Your task to perform on an android device: Set the phone to "Do not disturb". Image 0: 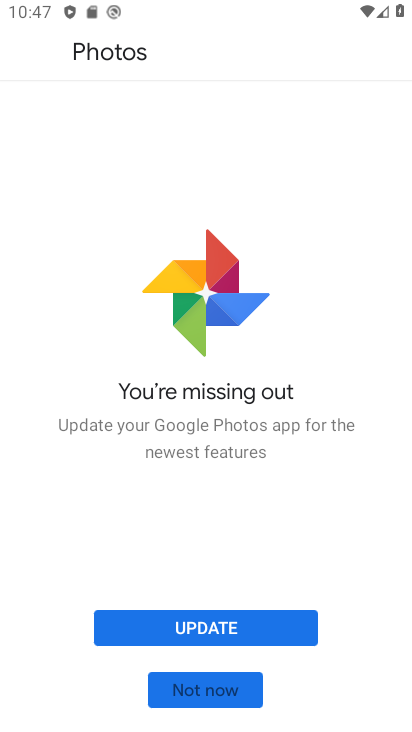
Step 0: press home button
Your task to perform on an android device: Set the phone to "Do not disturb". Image 1: 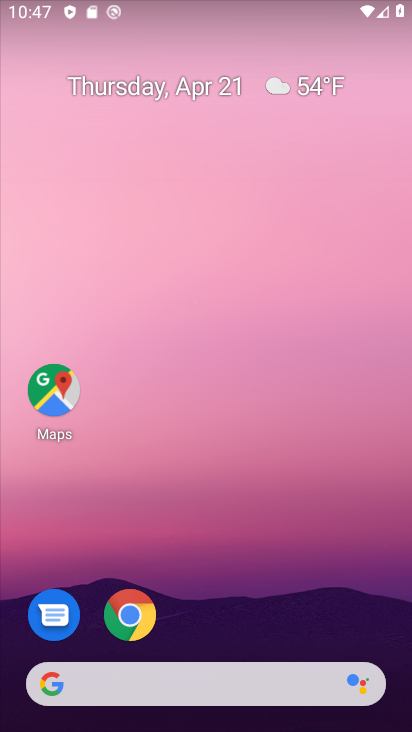
Step 1: drag from (234, 634) to (293, 313)
Your task to perform on an android device: Set the phone to "Do not disturb". Image 2: 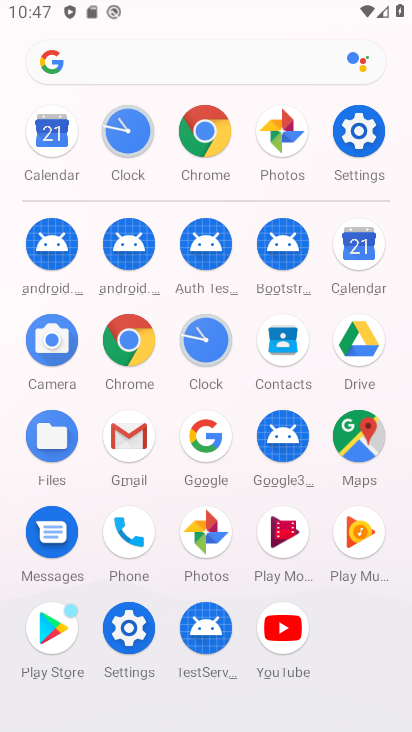
Step 2: click (359, 142)
Your task to perform on an android device: Set the phone to "Do not disturb". Image 3: 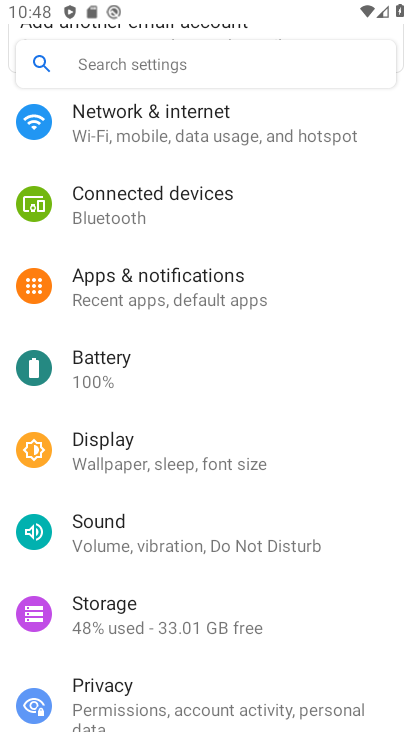
Step 3: click (190, 536)
Your task to perform on an android device: Set the phone to "Do not disturb". Image 4: 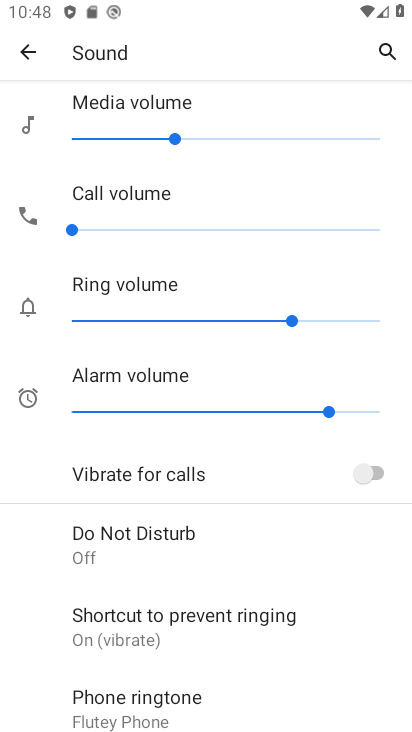
Step 4: click (188, 541)
Your task to perform on an android device: Set the phone to "Do not disturb". Image 5: 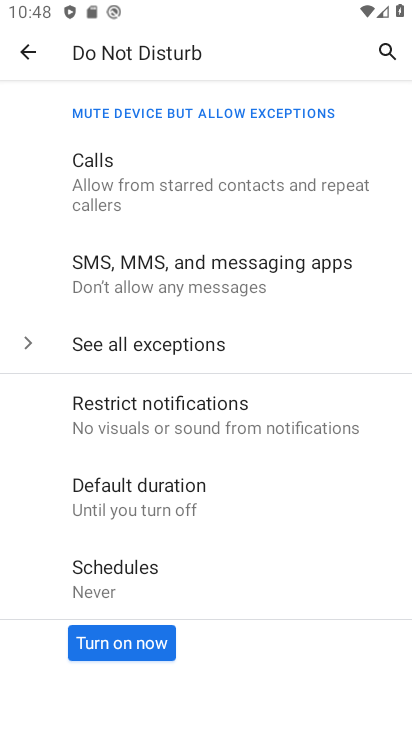
Step 5: click (101, 644)
Your task to perform on an android device: Set the phone to "Do not disturb". Image 6: 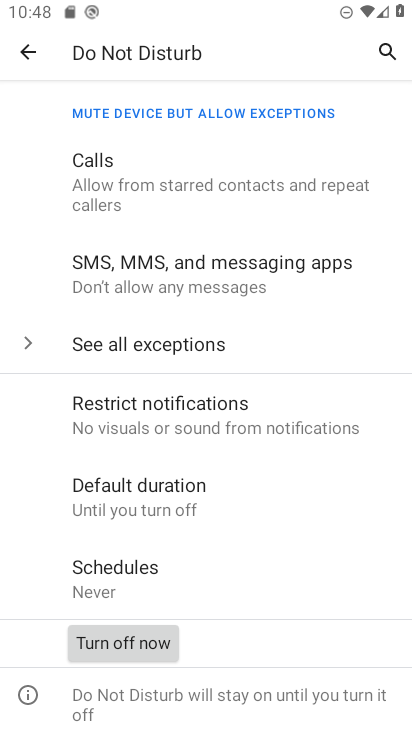
Step 6: task complete